Your task to perform on an android device: open app "Duolingo: language lessons" (install if not already installed) and enter user name: "omens@gmail.com" and password: "casks" Image 0: 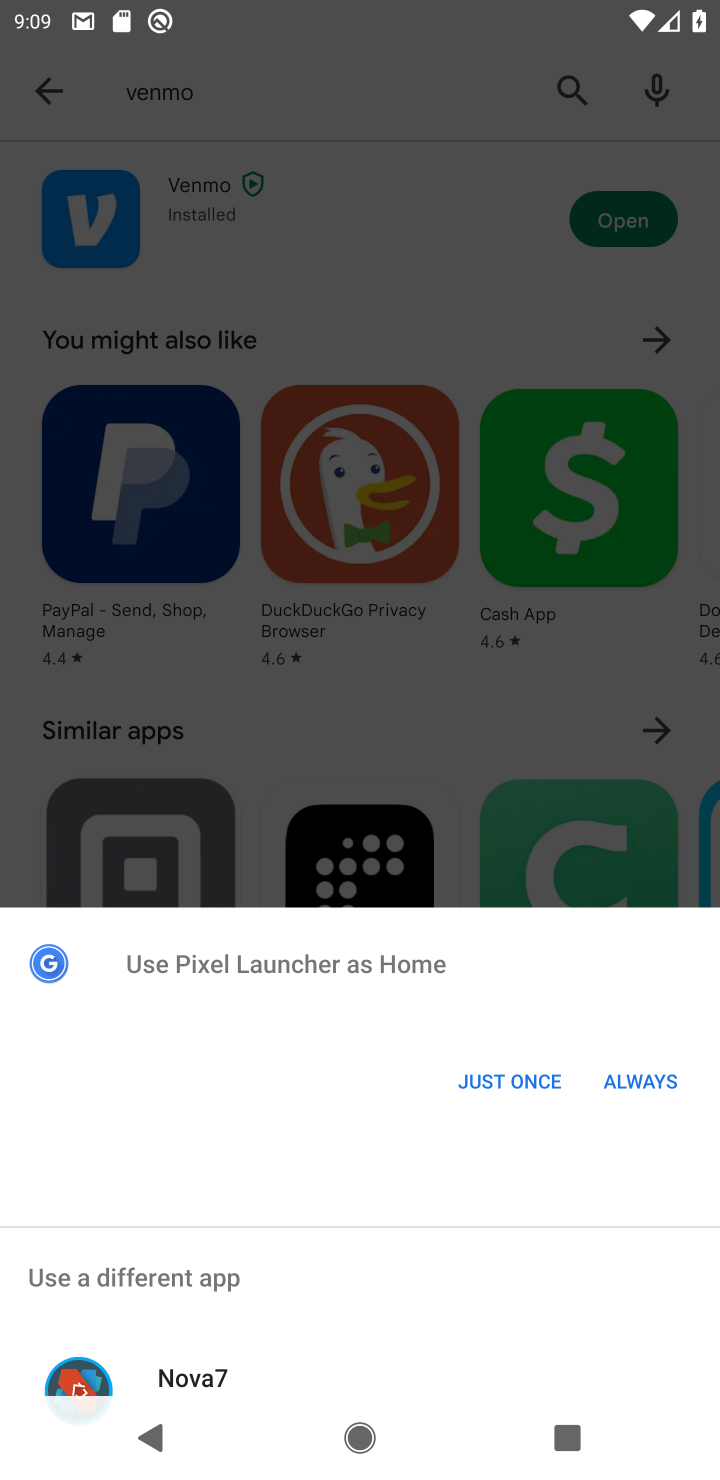
Step 0: press home button
Your task to perform on an android device: open app "Duolingo: language lessons" (install if not already installed) and enter user name: "omens@gmail.com" and password: "casks" Image 1: 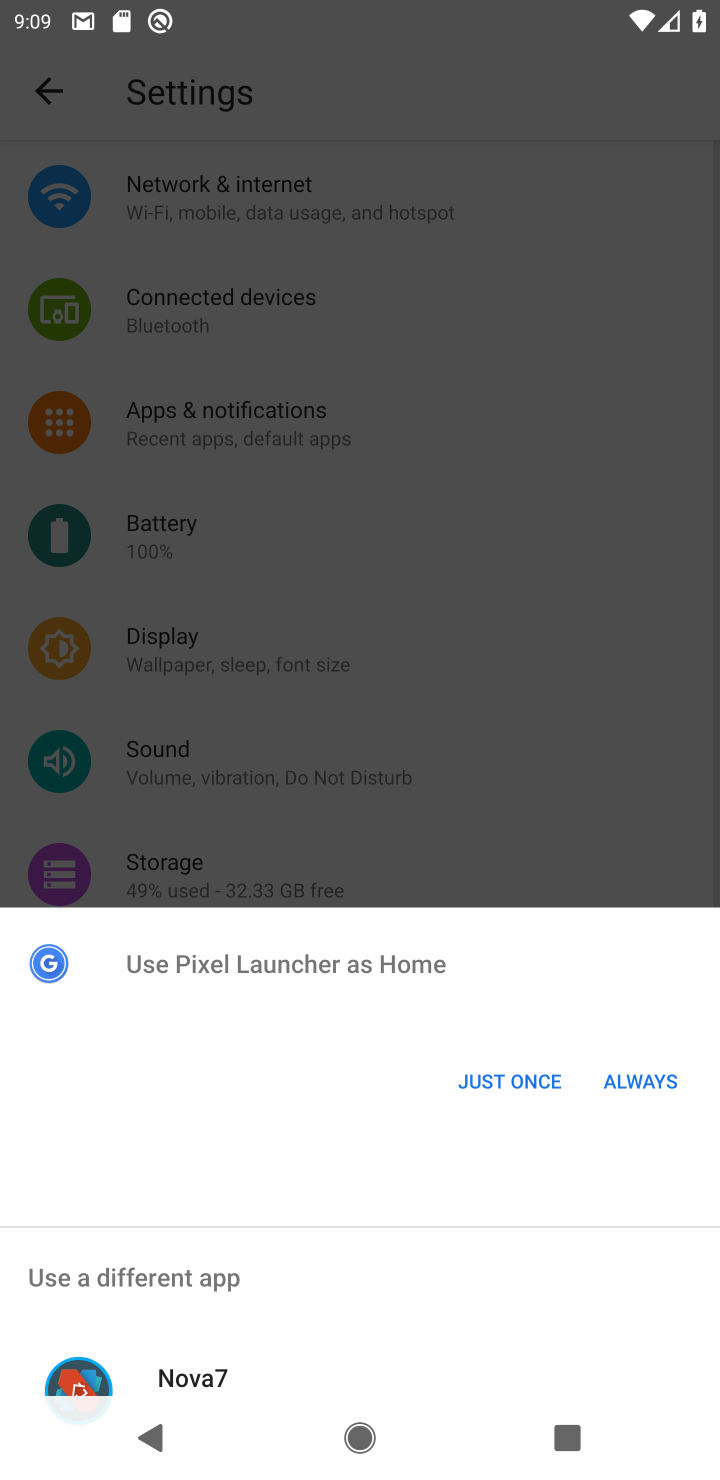
Step 1: press home button
Your task to perform on an android device: open app "Duolingo: language lessons" (install if not already installed) and enter user name: "omens@gmail.com" and password: "casks" Image 2: 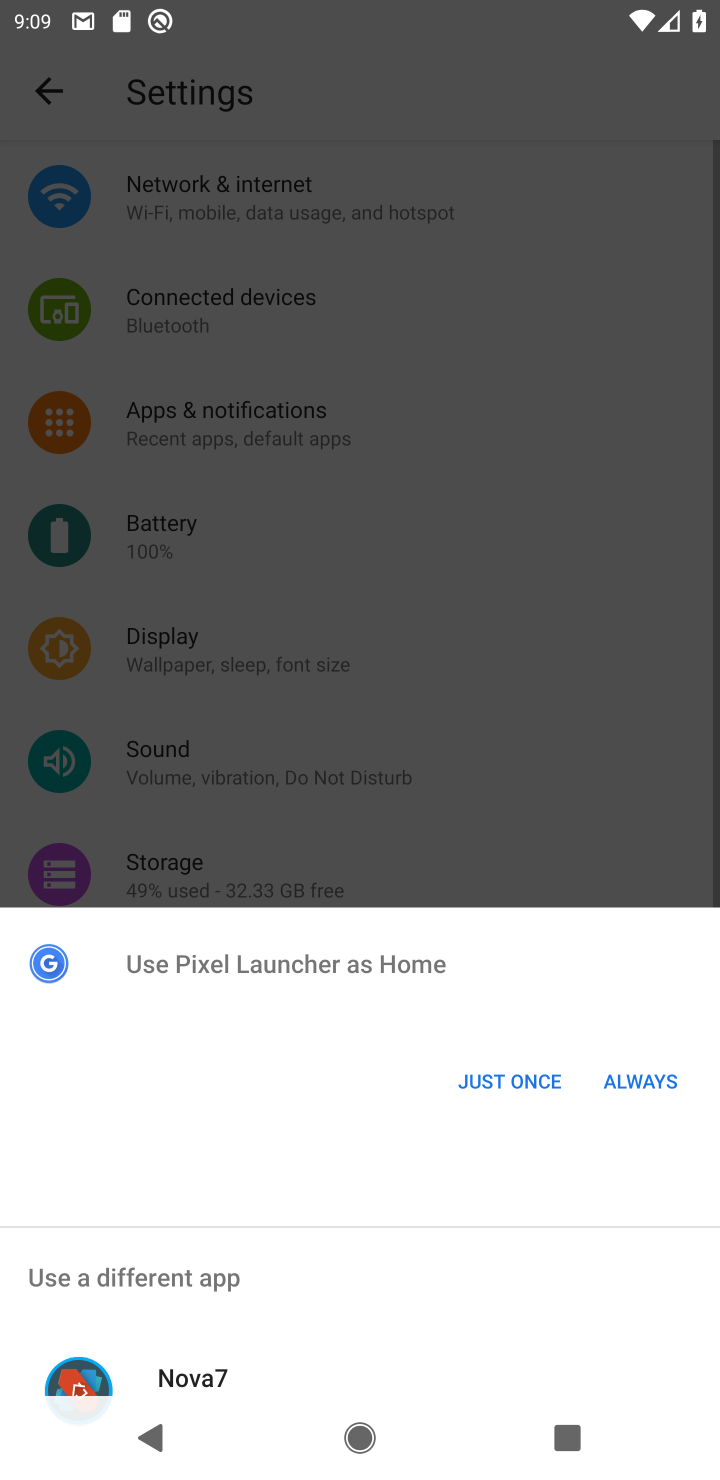
Step 2: drag from (409, 722) to (471, 226)
Your task to perform on an android device: open app "Duolingo: language lessons" (install if not already installed) and enter user name: "omens@gmail.com" and password: "casks" Image 3: 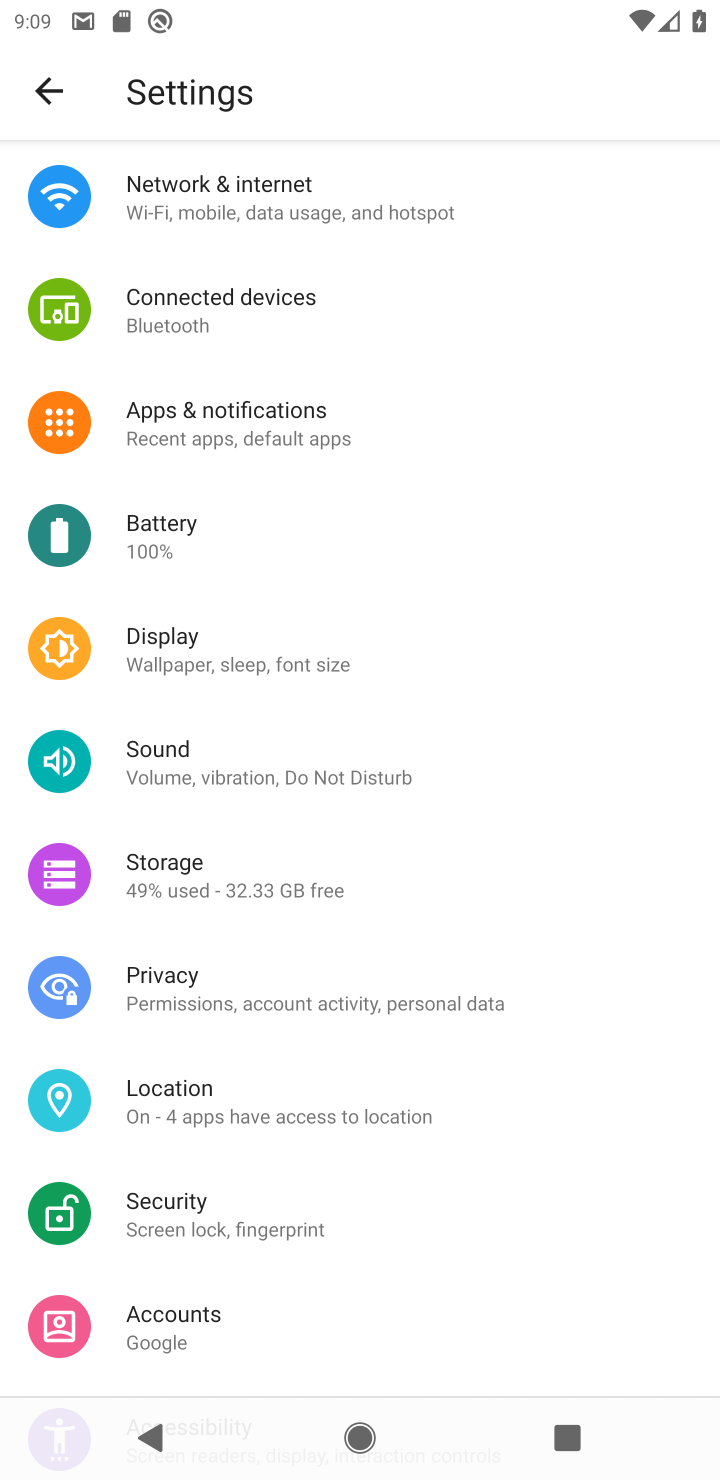
Step 3: press home button
Your task to perform on an android device: open app "Duolingo: language lessons" (install if not already installed) and enter user name: "omens@gmail.com" and password: "casks" Image 4: 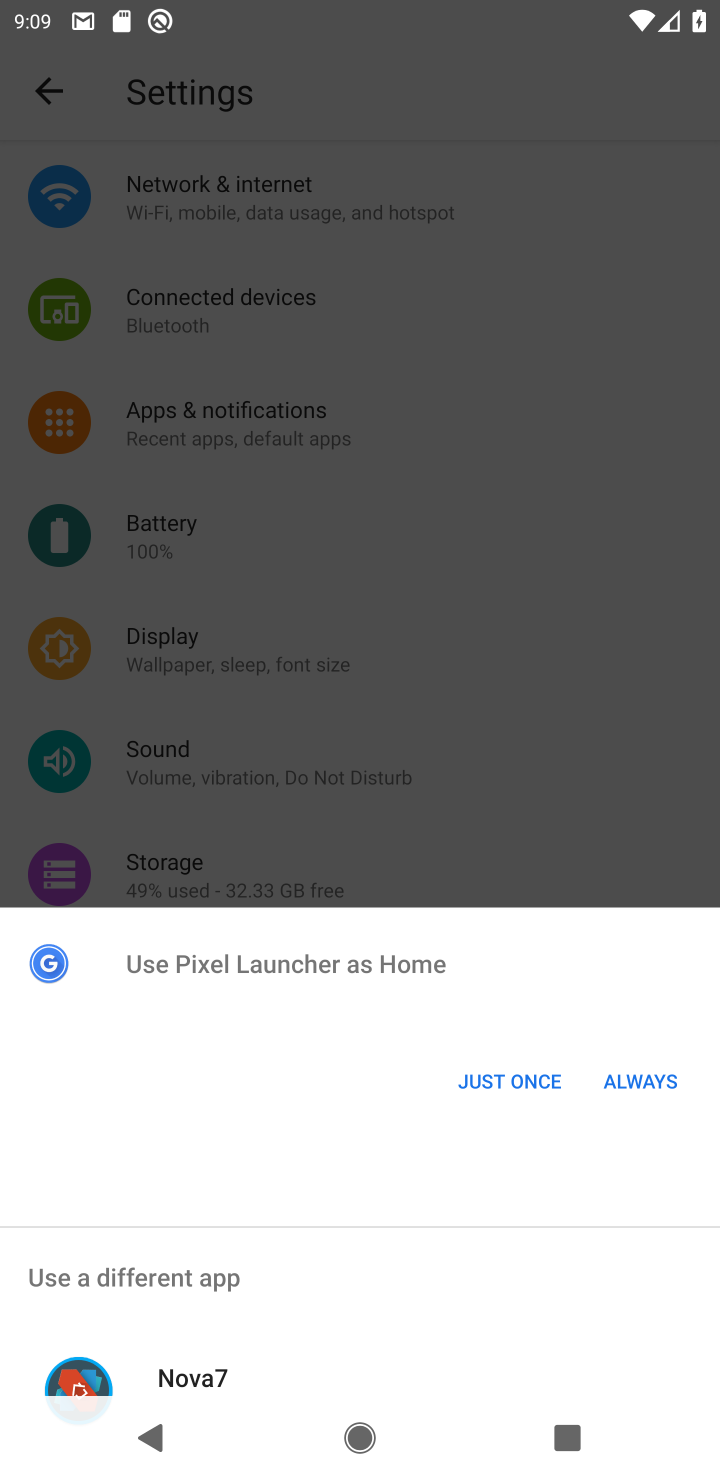
Step 4: press back button
Your task to perform on an android device: open app "Duolingo: language lessons" (install if not already installed) and enter user name: "omens@gmail.com" and password: "casks" Image 5: 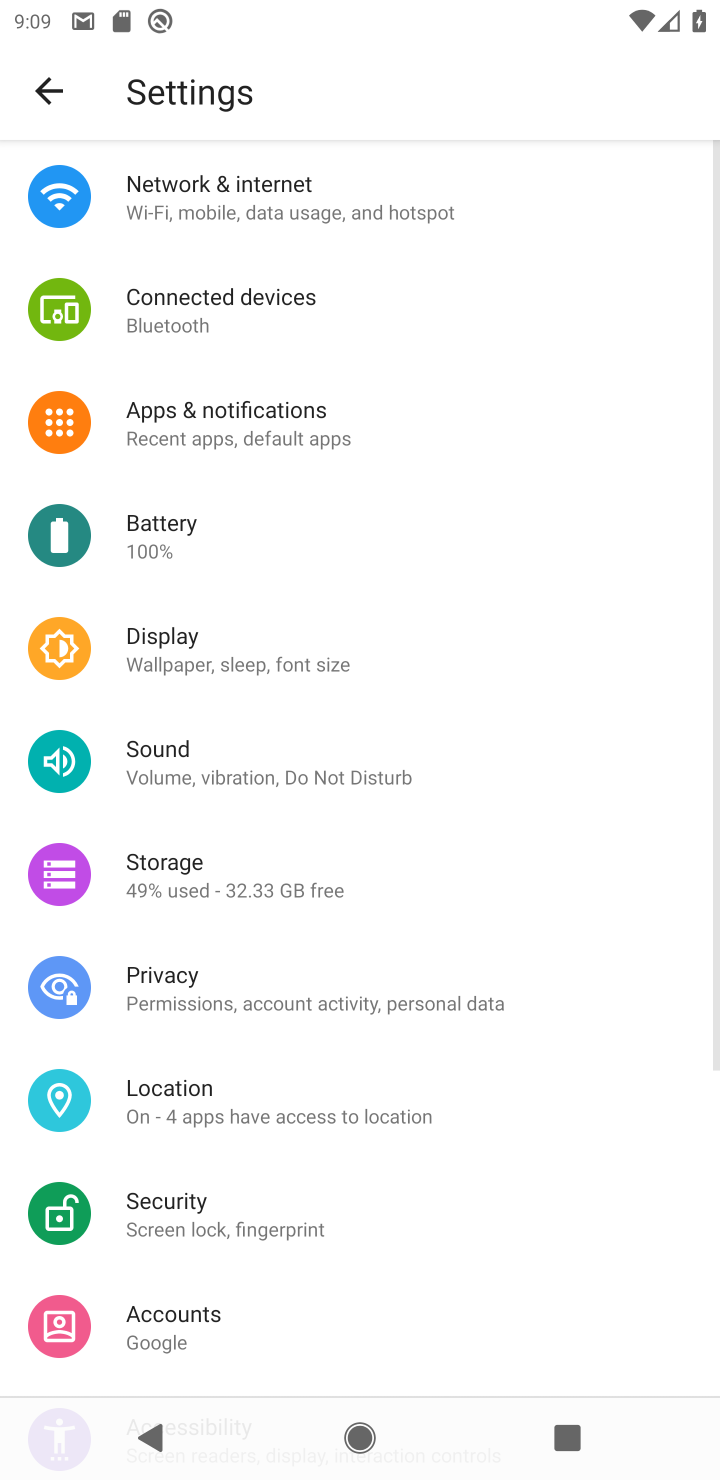
Step 5: press back button
Your task to perform on an android device: open app "Duolingo: language lessons" (install if not already installed) and enter user name: "omens@gmail.com" and password: "casks" Image 6: 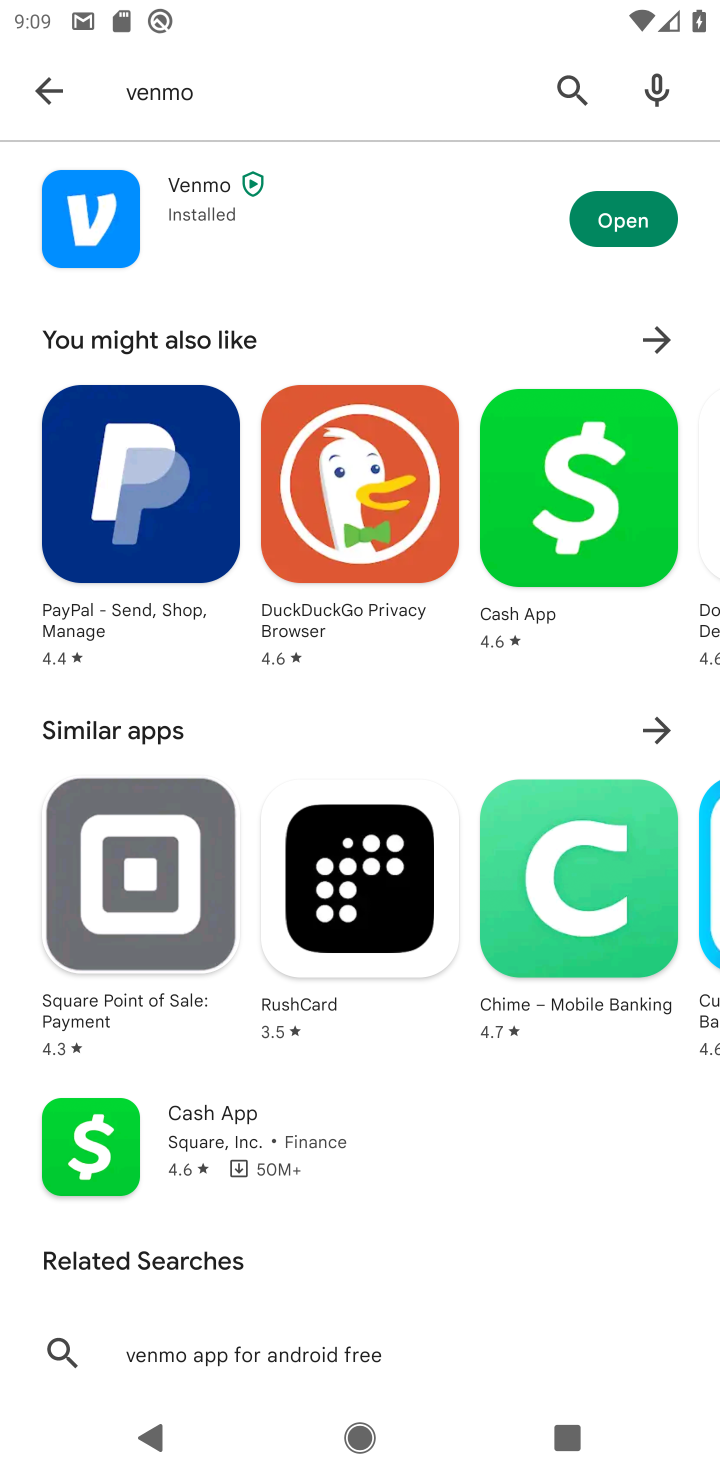
Step 6: click (551, 72)
Your task to perform on an android device: open app "Duolingo: language lessons" (install if not already installed) and enter user name: "omens@gmail.com" and password: "casks" Image 7: 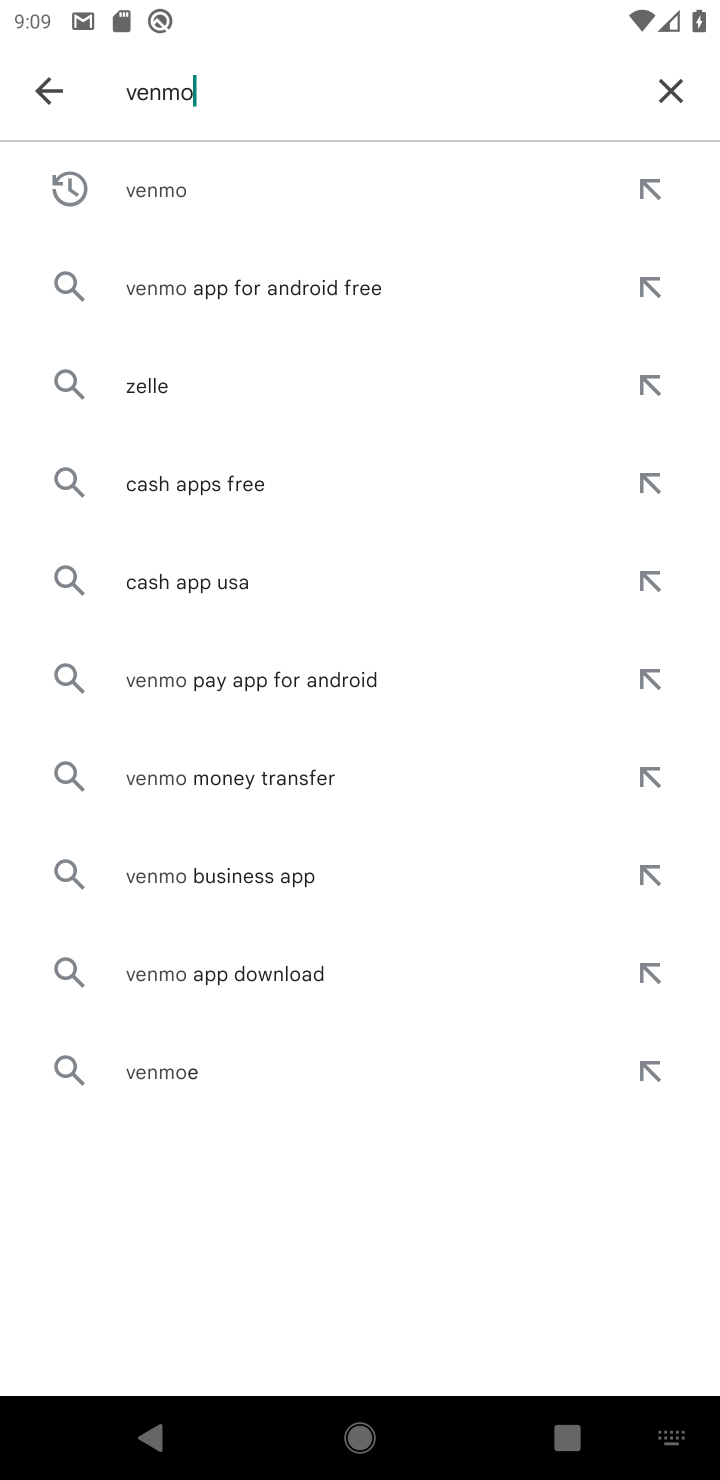
Step 7: click (670, 77)
Your task to perform on an android device: open app "Duolingo: language lessons" (install if not already installed) and enter user name: "omens@gmail.com" and password: "casks" Image 8: 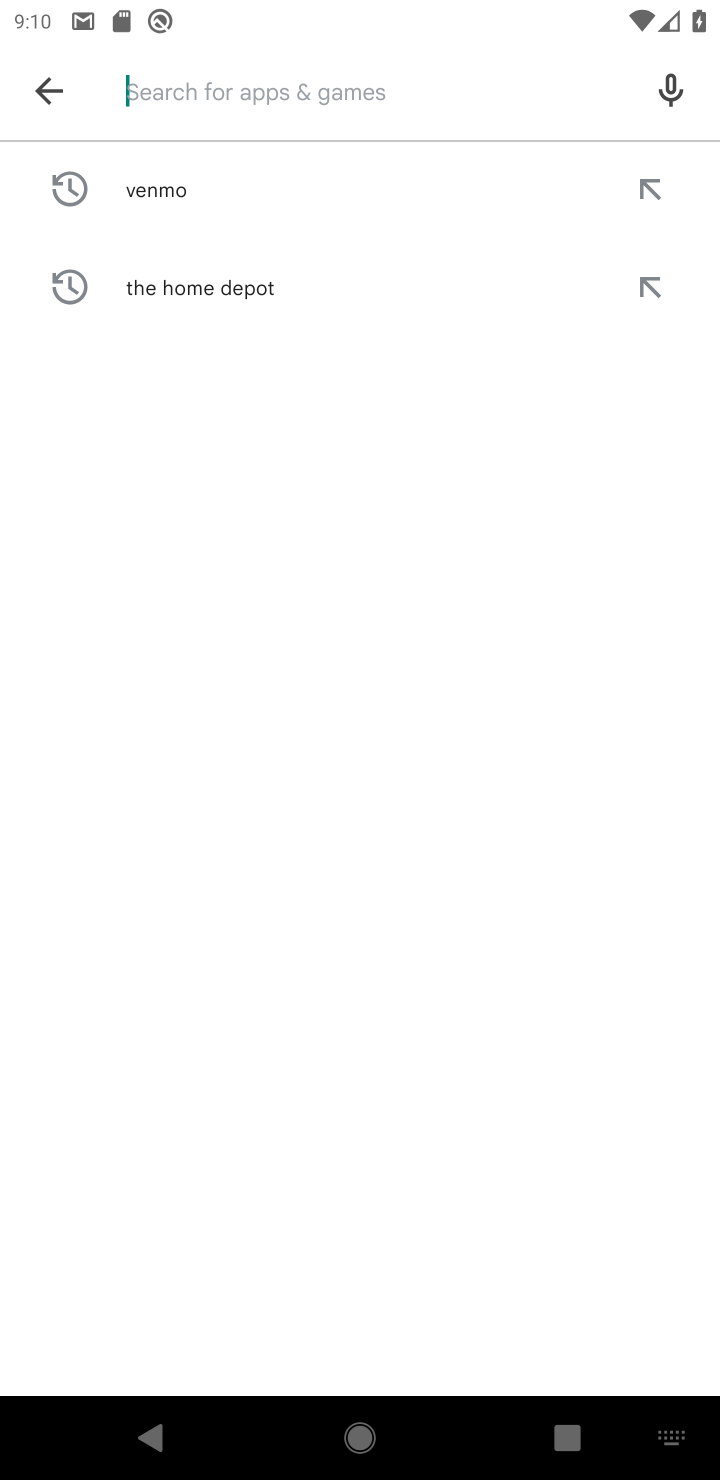
Step 8: type "Duolingo: language lessons"
Your task to perform on an android device: open app "Duolingo: language lessons" (install if not already installed) and enter user name: "omens@gmail.com" and password: "casks" Image 9: 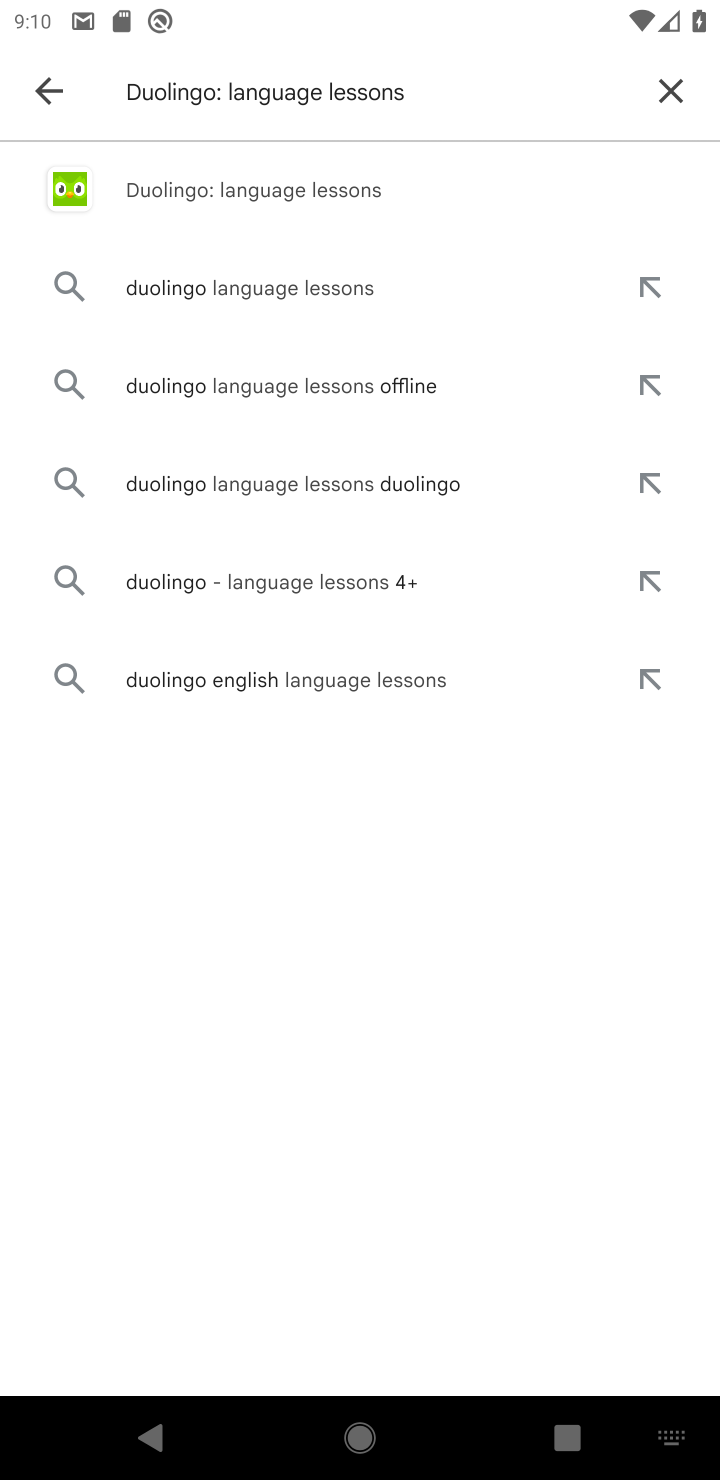
Step 9: click (321, 175)
Your task to perform on an android device: open app "Duolingo: language lessons" (install if not already installed) and enter user name: "omens@gmail.com" and password: "casks" Image 10: 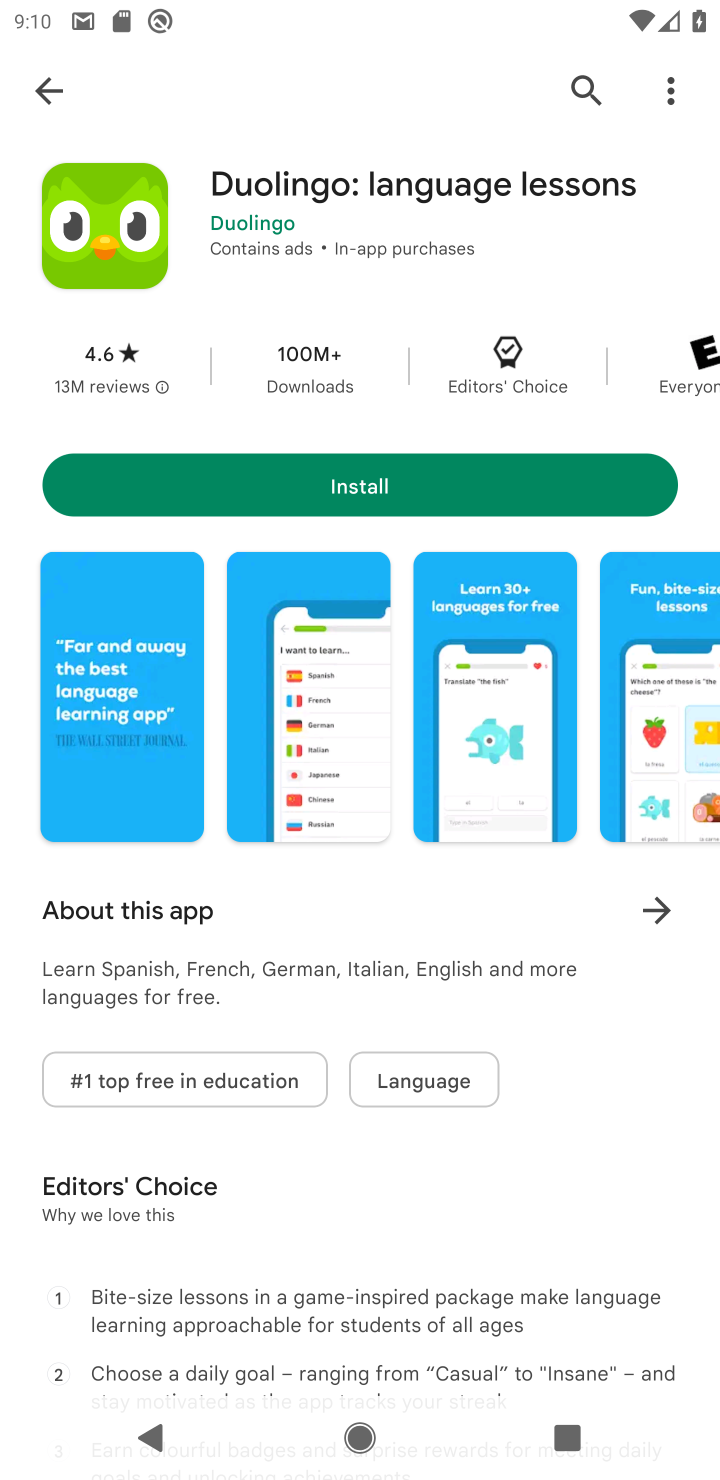
Step 10: click (416, 495)
Your task to perform on an android device: open app "Duolingo: language lessons" (install if not already installed) and enter user name: "omens@gmail.com" and password: "casks" Image 11: 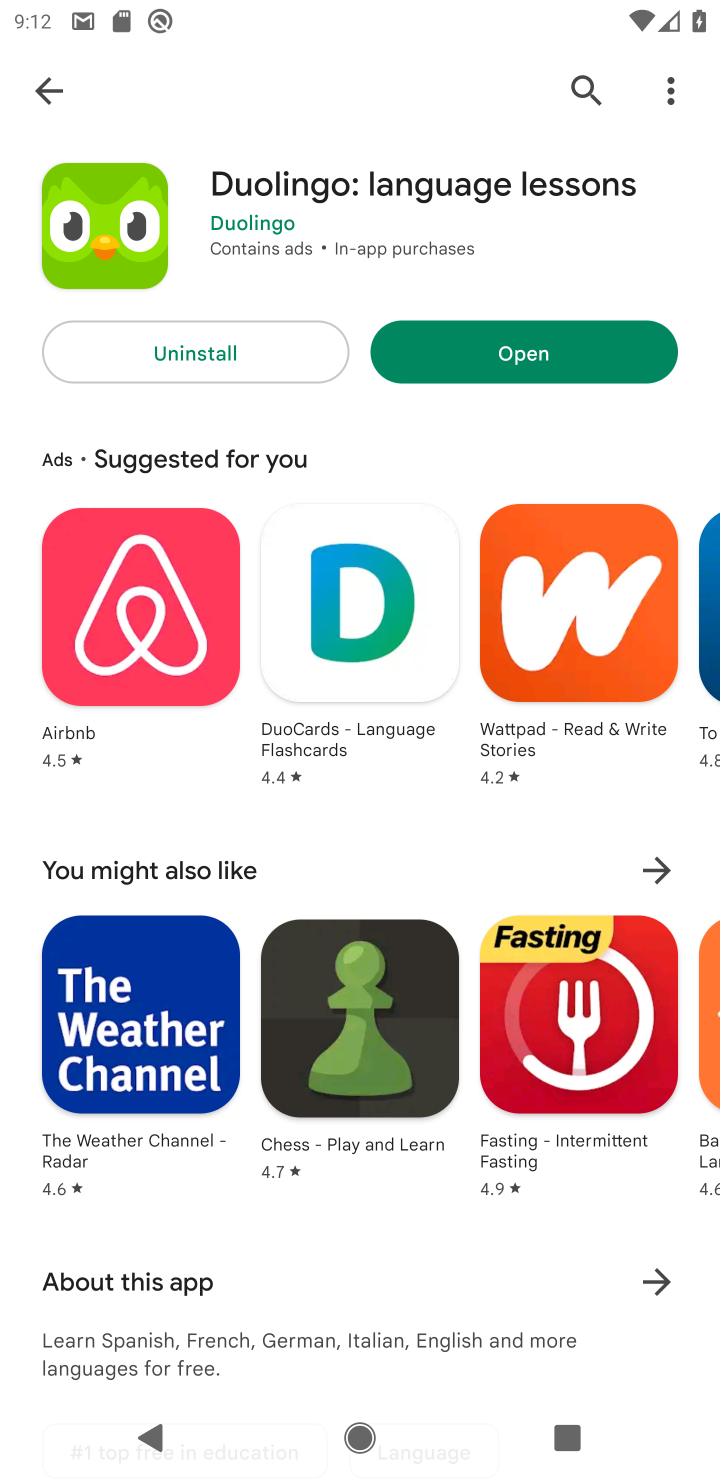
Step 11: click (579, 363)
Your task to perform on an android device: open app "Duolingo: language lessons" (install if not already installed) and enter user name: "omens@gmail.com" and password: "casks" Image 12: 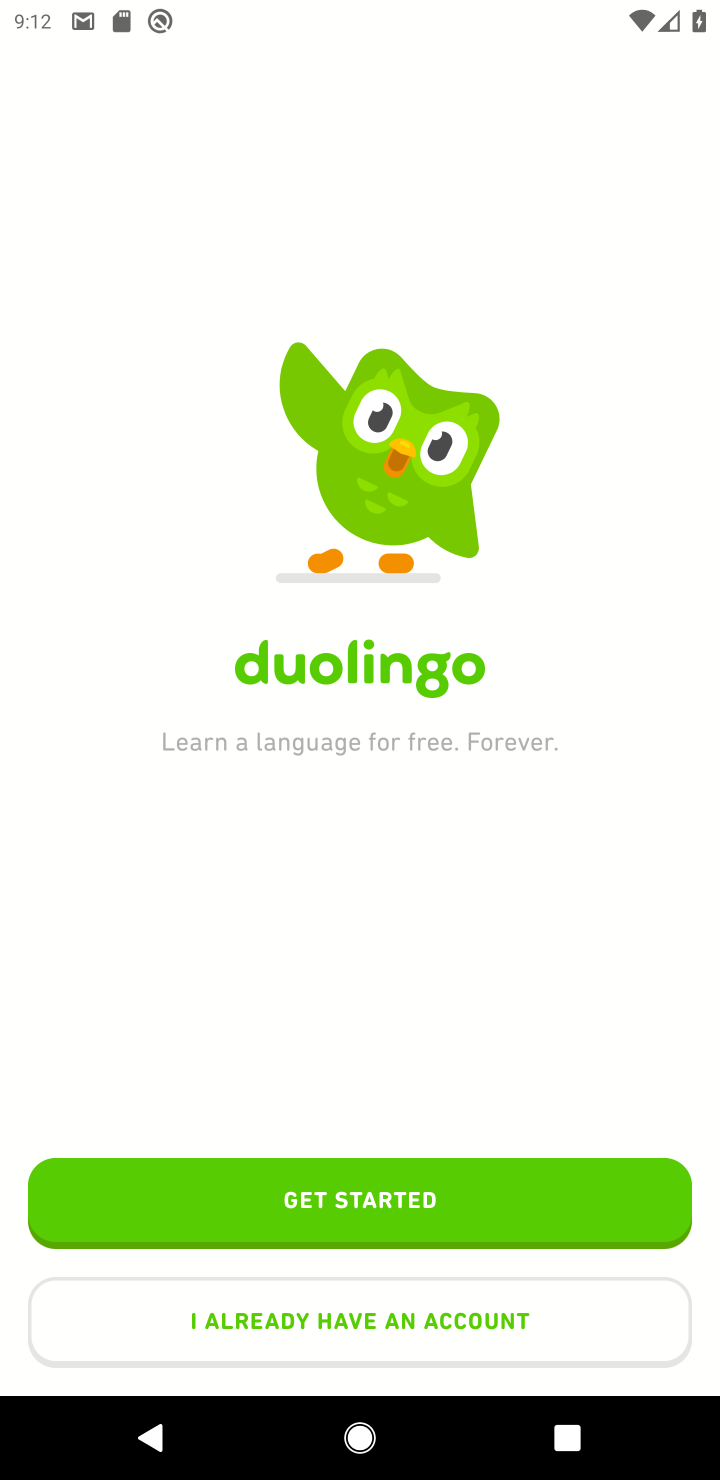
Step 12: click (324, 1320)
Your task to perform on an android device: open app "Duolingo: language lessons" (install if not already installed) and enter user name: "omens@gmail.com" and password: "casks" Image 13: 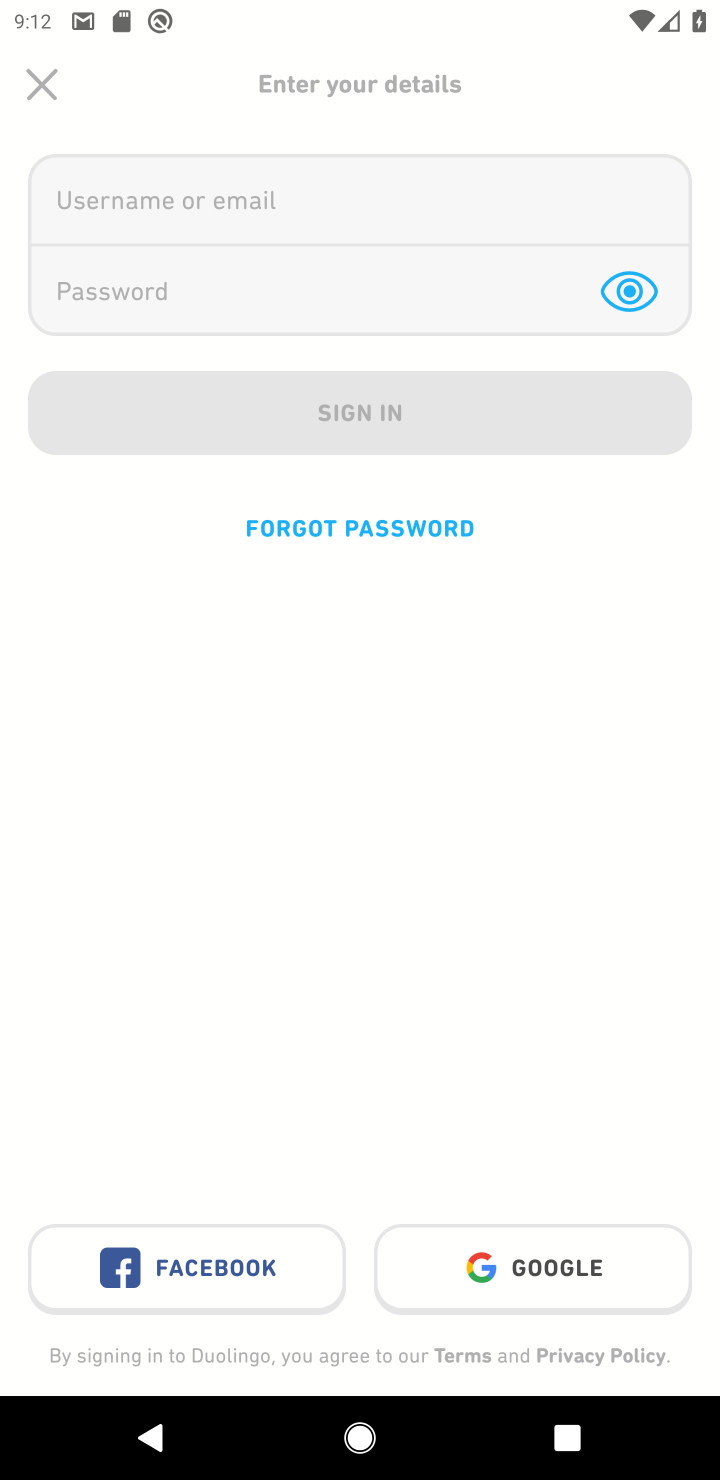
Step 13: click (192, 188)
Your task to perform on an android device: open app "Duolingo: language lessons" (install if not already installed) and enter user name: "omens@gmail.com" and password: "casks" Image 14: 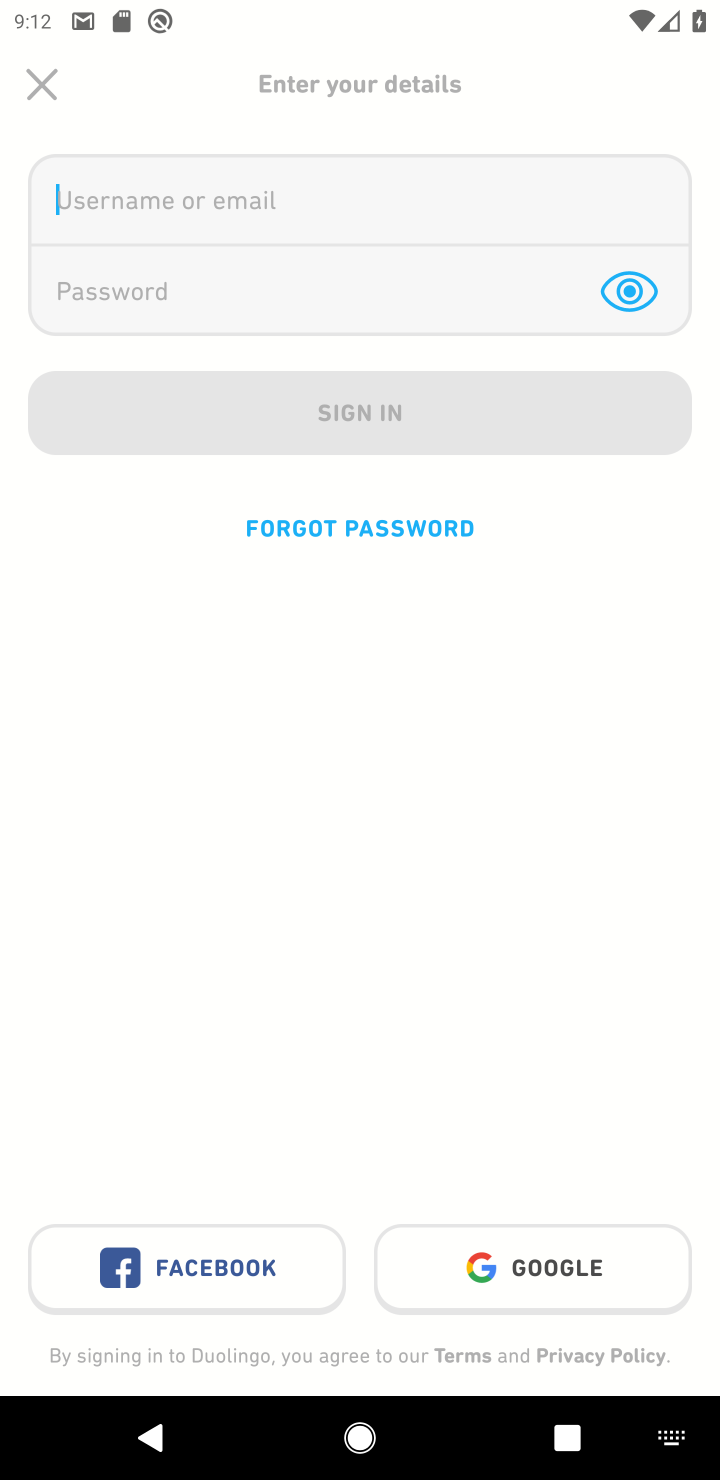
Step 14: type "omens@gmail.com"
Your task to perform on an android device: open app "Duolingo: language lessons" (install if not already installed) and enter user name: "omens@gmail.com" and password: "casks" Image 15: 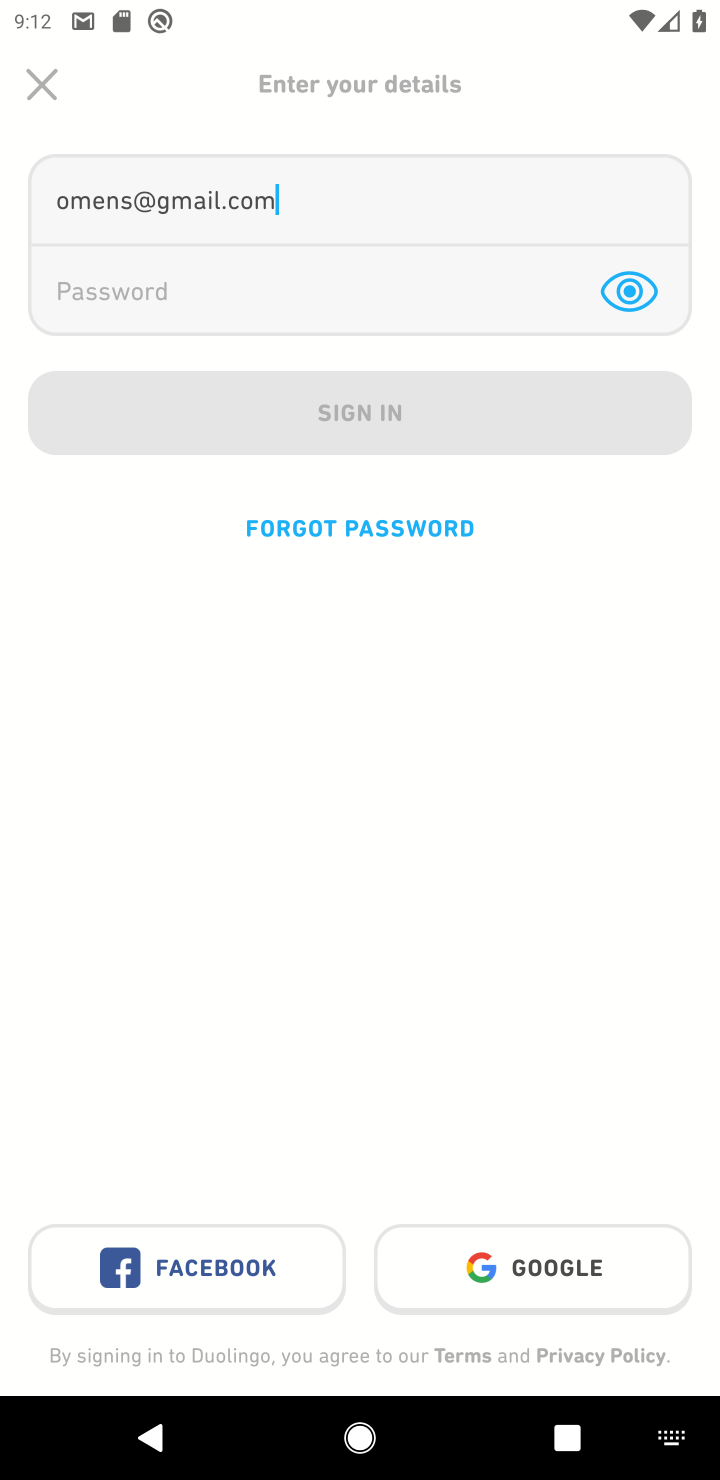
Step 15: click (187, 292)
Your task to perform on an android device: open app "Duolingo: language lessons" (install if not already installed) and enter user name: "omens@gmail.com" and password: "casks" Image 16: 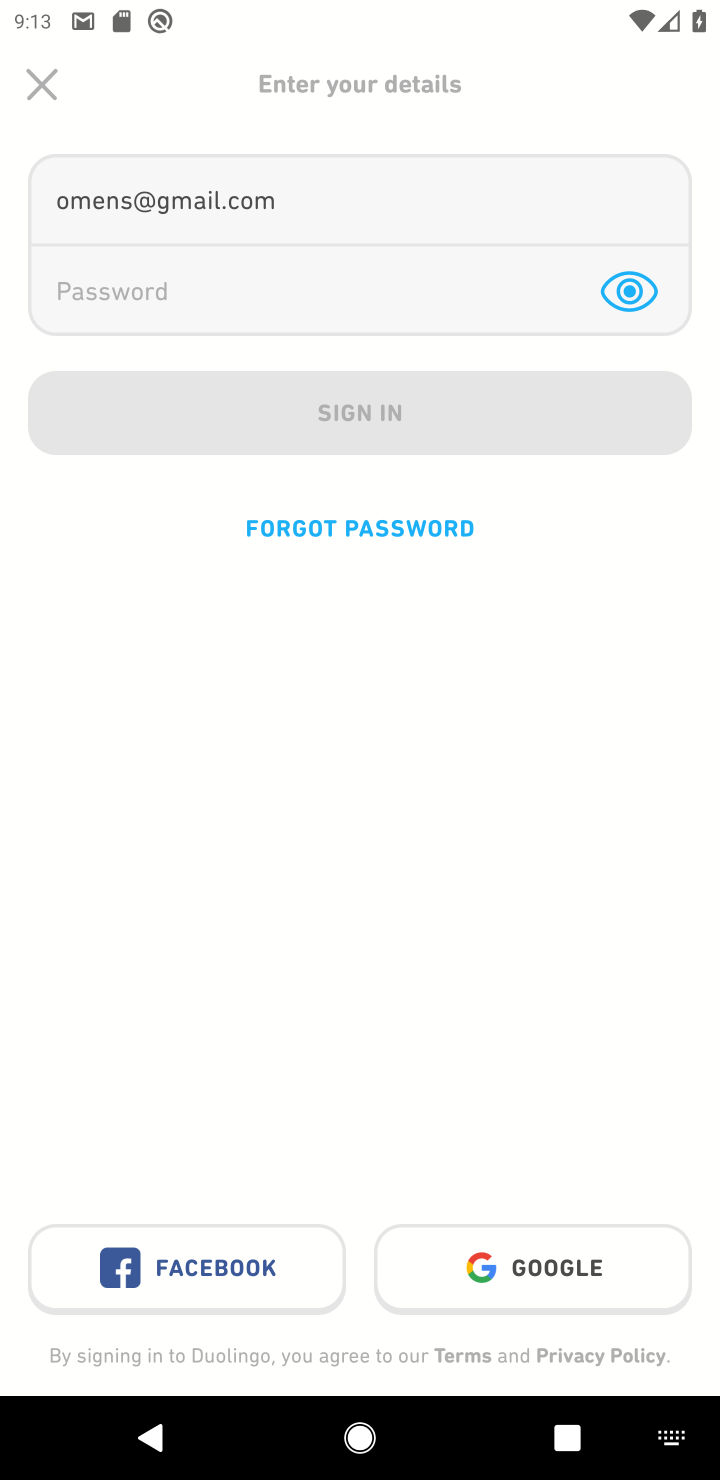
Step 16: type "casks"
Your task to perform on an android device: open app "Duolingo: language lessons" (install if not already installed) and enter user name: "omens@gmail.com" and password: "casks" Image 17: 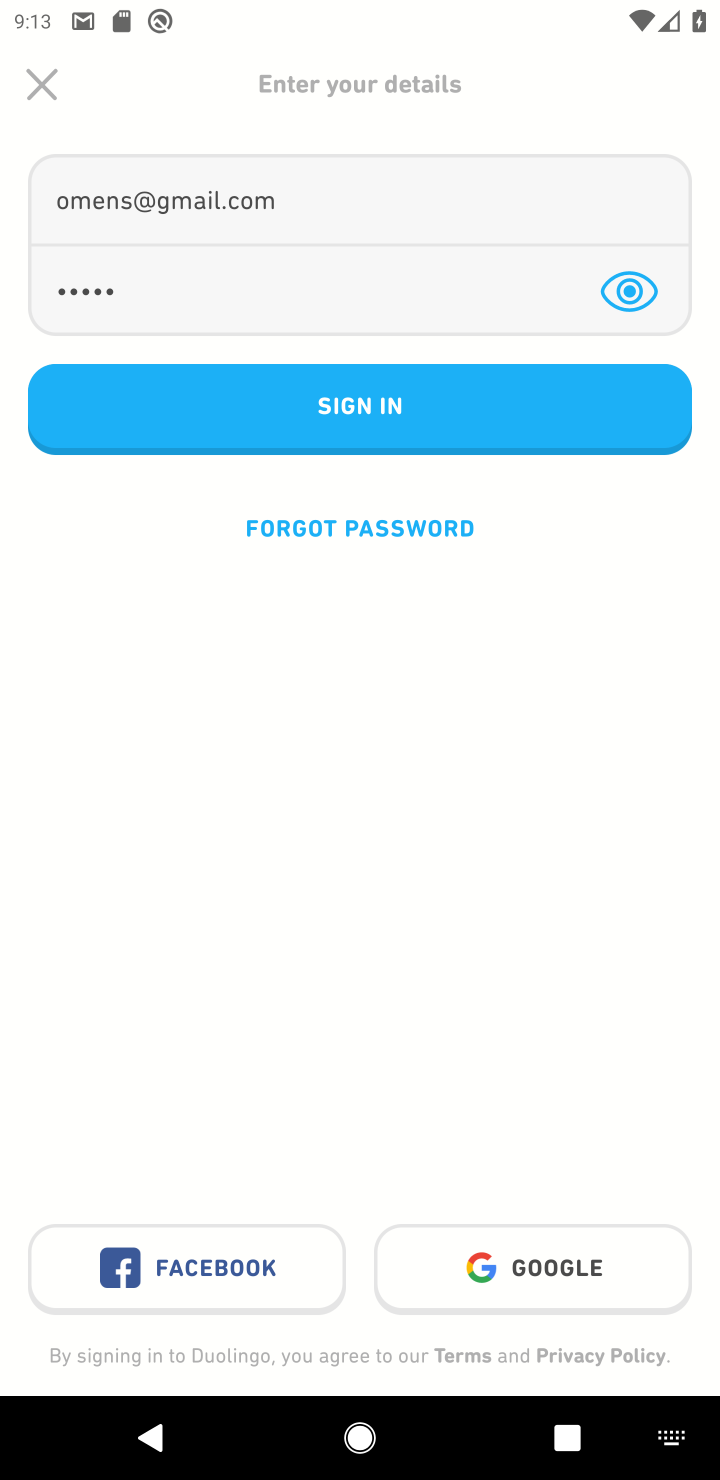
Step 17: task complete